Your task to perform on an android device: Go to Reddit.com Image 0: 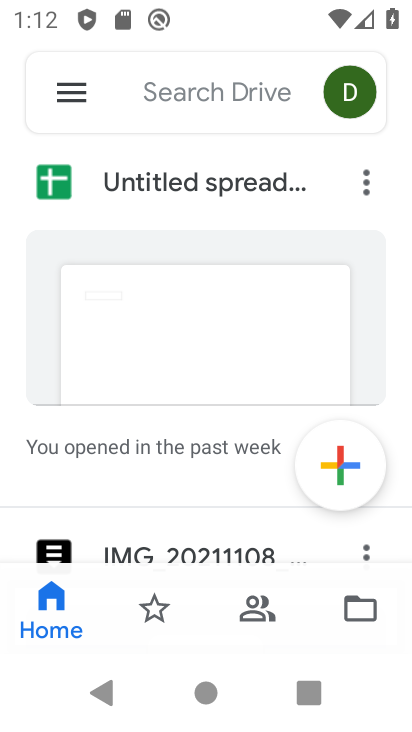
Step 0: press home button
Your task to perform on an android device: Go to Reddit.com Image 1: 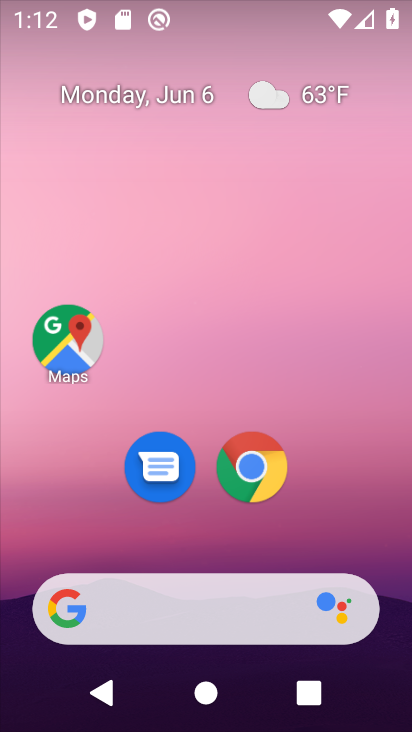
Step 1: drag from (393, 599) to (269, 33)
Your task to perform on an android device: Go to Reddit.com Image 2: 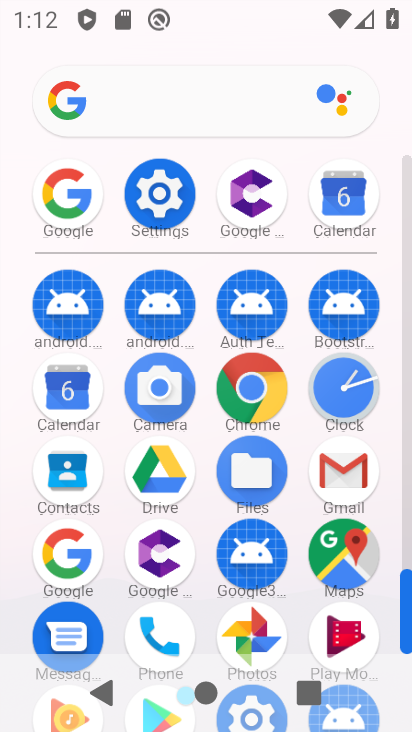
Step 2: click (56, 544)
Your task to perform on an android device: Go to Reddit.com Image 3: 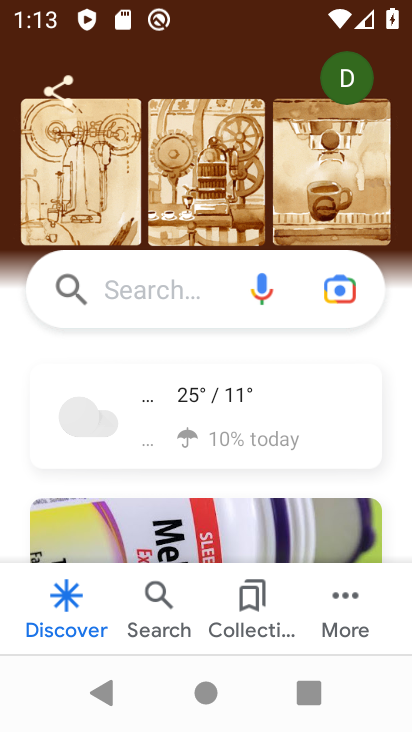
Step 3: click (150, 293)
Your task to perform on an android device: Go to Reddit.com Image 4: 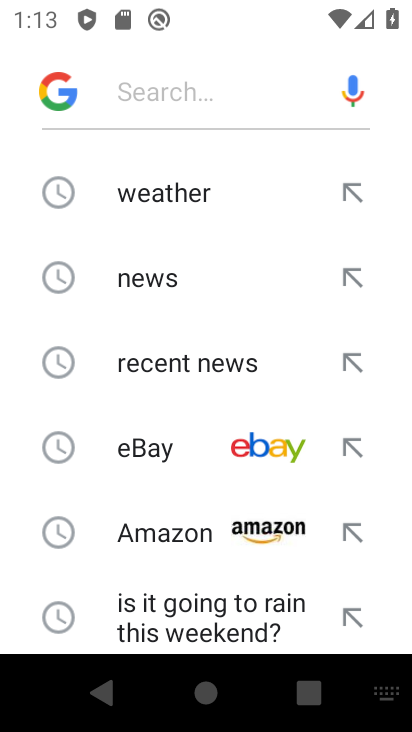
Step 4: drag from (131, 563) to (97, 117)
Your task to perform on an android device: Go to Reddit.com Image 5: 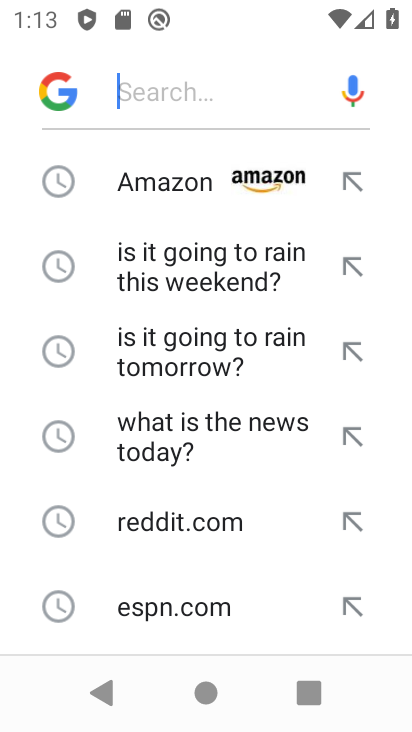
Step 5: click (187, 519)
Your task to perform on an android device: Go to Reddit.com Image 6: 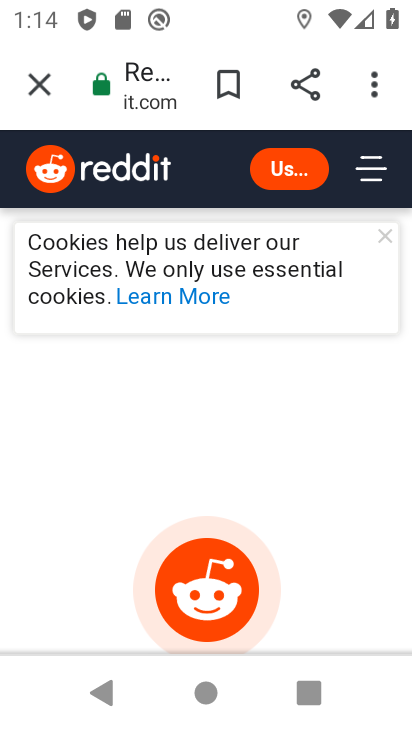
Step 6: task complete